Your task to perform on an android device: turn off javascript in the chrome app Image 0: 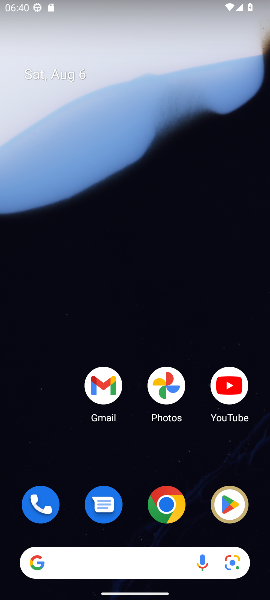
Step 0: click (168, 506)
Your task to perform on an android device: turn off javascript in the chrome app Image 1: 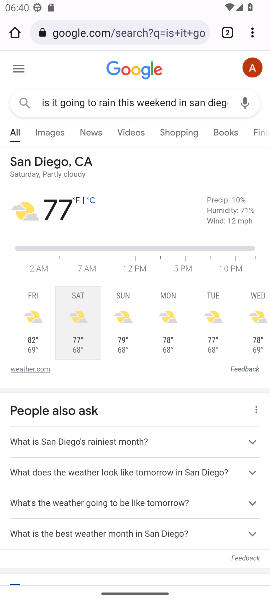
Step 1: click (252, 31)
Your task to perform on an android device: turn off javascript in the chrome app Image 2: 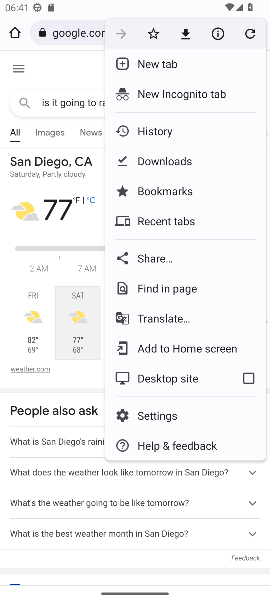
Step 2: click (152, 414)
Your task to perform on an android device: turn off javascript in the chrome app Image 3: 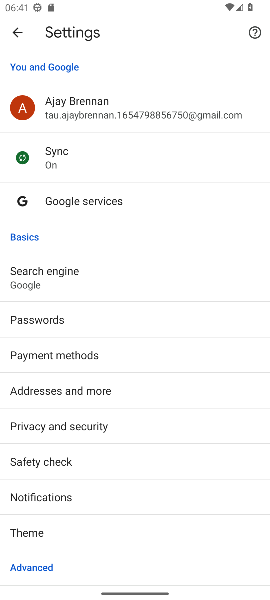
Step 3: drag from (101, 469) to (147, 290)
Your task to perform on an android device: turn off javascript in the chrome app Image 4: 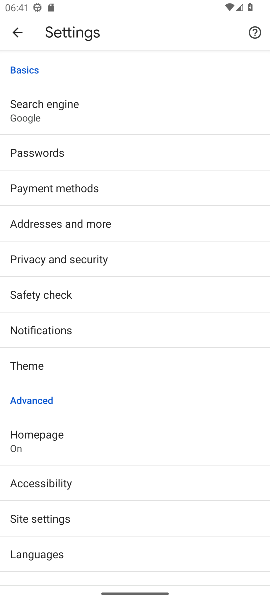
Step 4: drag from (106, 466) to (165, 379)
Your task to perform on an android device: turn off javascript in the chrome app Image 5: 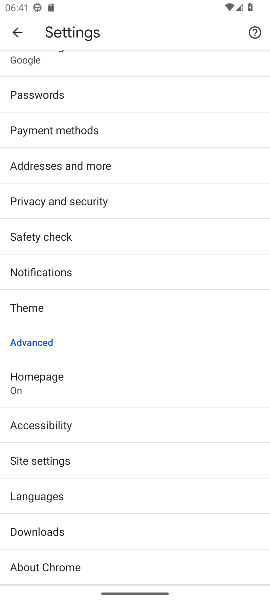
Step 5: click (65, 460)
Your task to perform on an android device: turn off javascript in the chrome app Image 6: 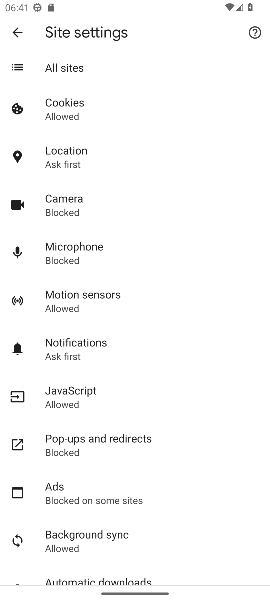
Step 6: click (74, 393)
Your task to perform on an android device: turn off javascript in the chrome app Image 7: 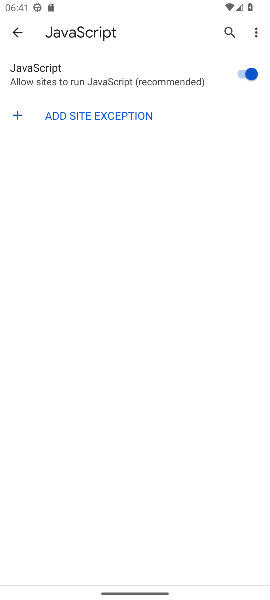
Step 7: click (247, 78)
Your task to perform on an android device: turn off javascript in the chrome app Image 8: 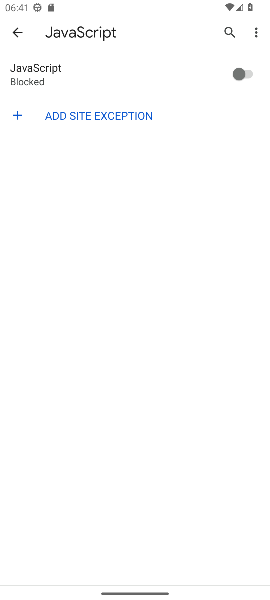
Step 8: task complete